Your task to perform on an android device: Open Android settings Image 0: 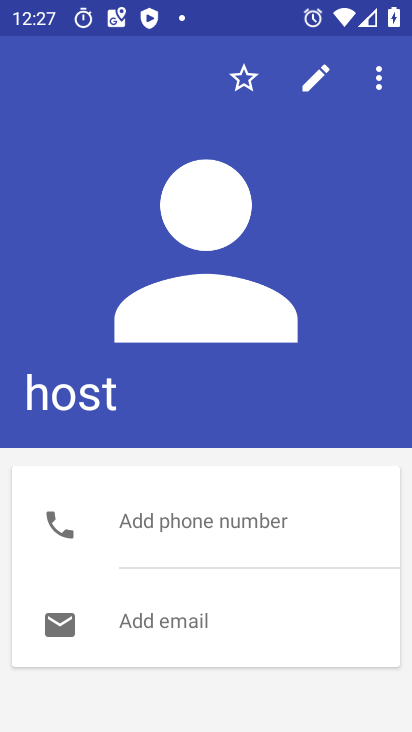
Step 0: press home button
Your task to perform on an android device: Open Android settings Image 1: 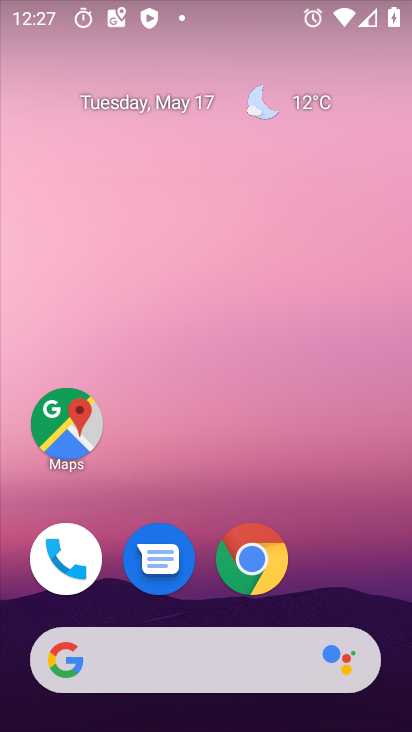
Step 1: drag from (343, 553) to (220, 12)
Your task to perform on an android device: Open Android settings Image 2: 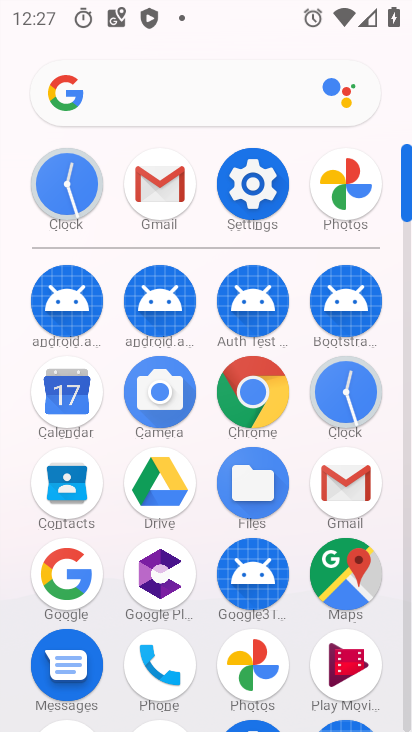
Step 2: click (246, 185)
Your task to perform on an android device: Open Android settings Image 3: 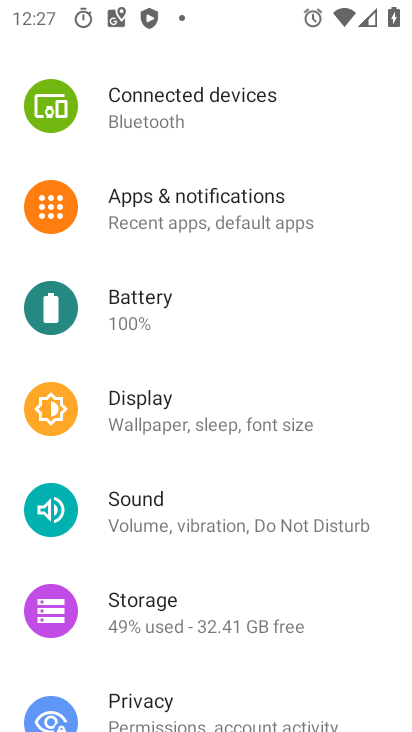
Step 3: task complete